Your task to perform on an android device: Do I have any events tomorrow? Image 0: 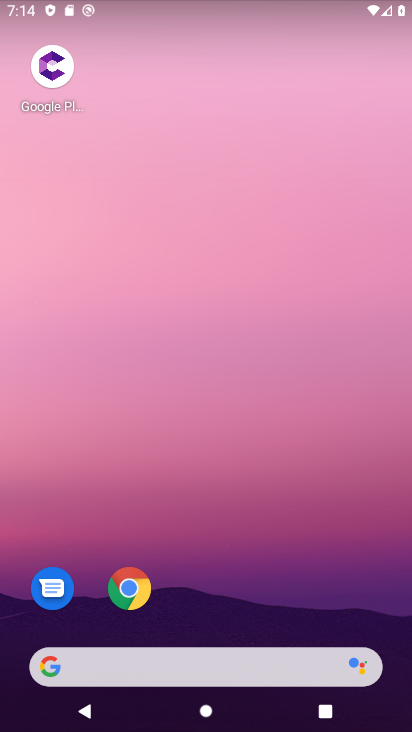
Step 0: drag from (241, 576) to (227, 82)
Your task to perform on an android device: Do I have any events tomorrow? Image 1: 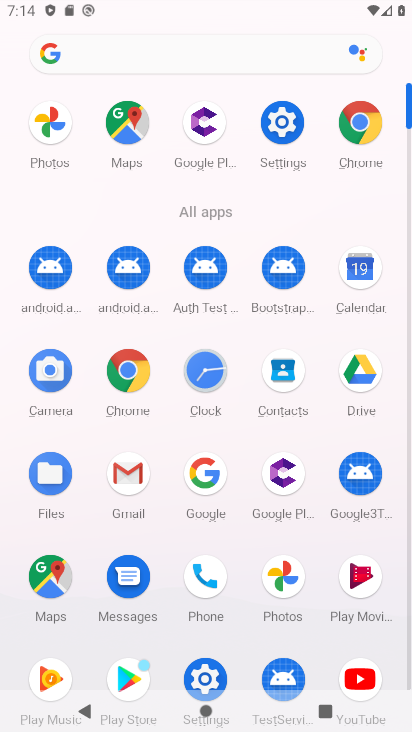
Step 1: click (357, 272)
Your task to perform on an android device: Do I have any events tomorrow? Image 2: 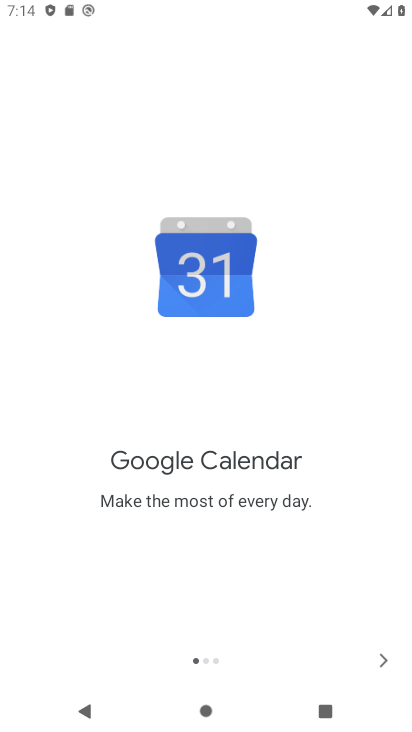
Step 2: click (385, 660)
Your task to perform on an android device: Do I have any events tomorrow? Image 3: 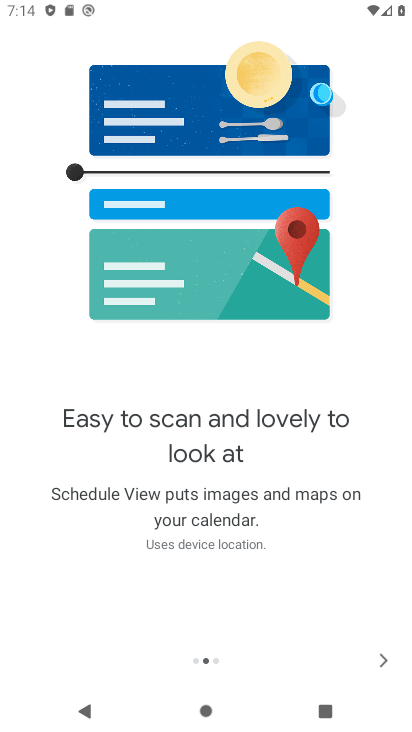
Step 3: click (385, 660)
Your task to perform on an android device: Do I have any events tomorrow? Image 4: 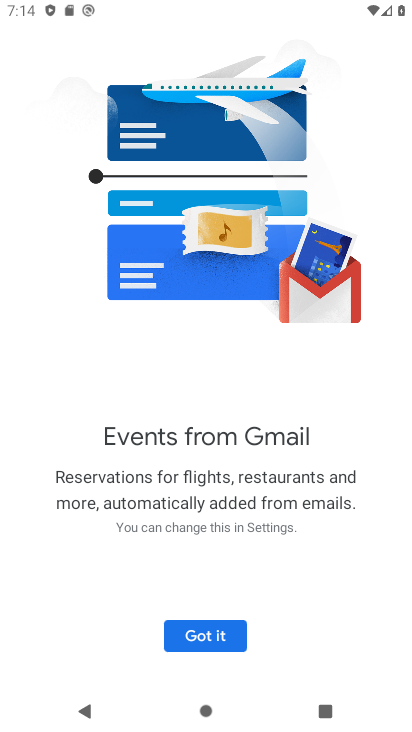
Step 4: click (385, 660)
Your task to perform on an android device: Do I have any events tomorrow? Image 5: 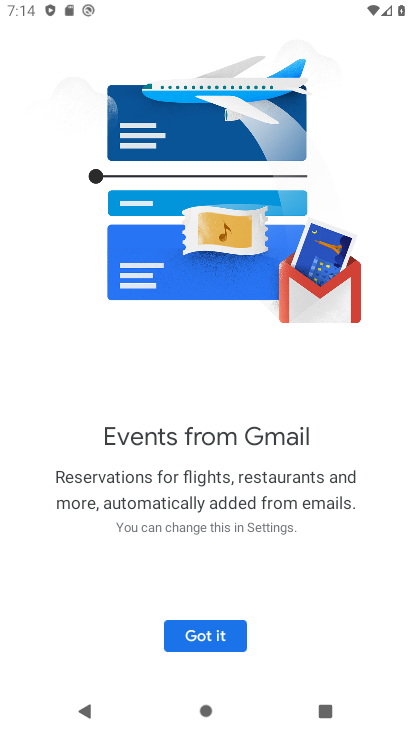
Step 5: click (195, 638)
Your task to perform on an android device: Do I have any events tomorrow? Image 6: 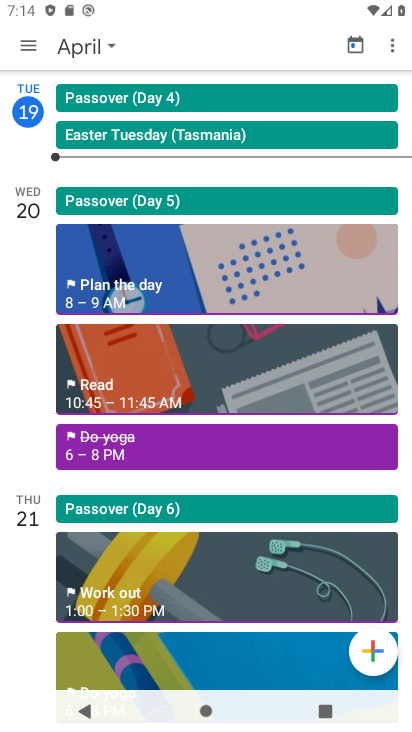
Step 6: click (21, 50)
Your task to perform on an android device: Do I have any events tomorrow? Image 7: 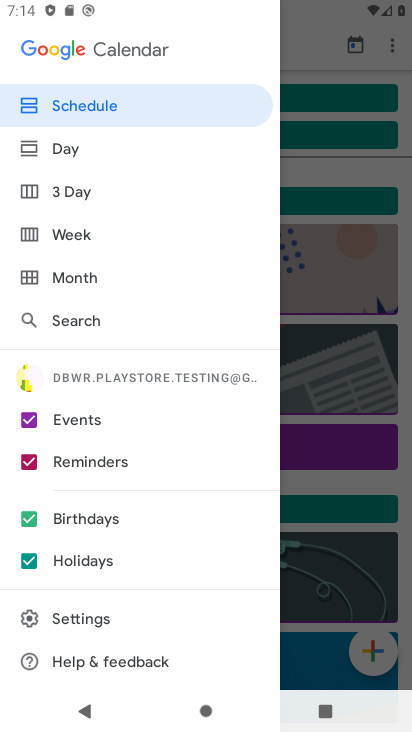
Step 7: click (63, 151)
Your task to perform on an android device: Do I have any events tomorrow? Image 8: 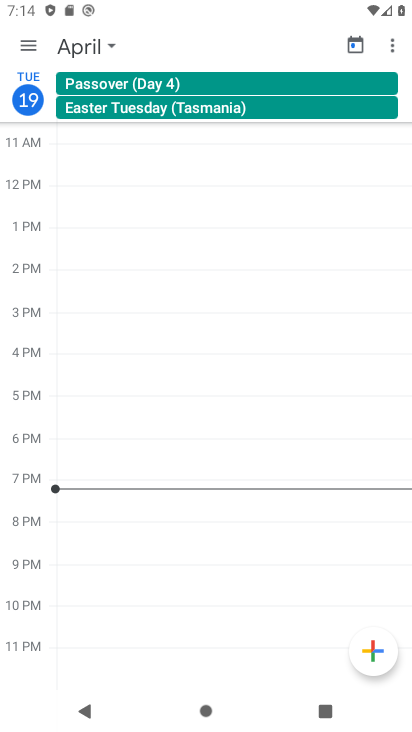
Step 8: click (114, 46)
Your task to perform on an android device: Do I have any events tomorrow? Image 9: 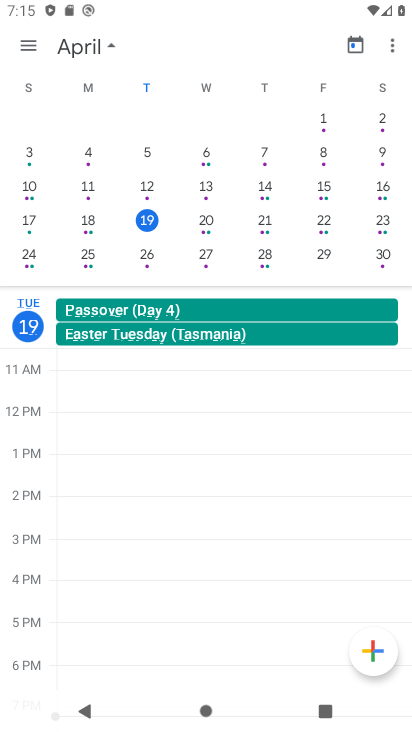
Step 9: click (212, 220)
Your task to perform on an android device: Do I have any events tomorrow? Image 10: 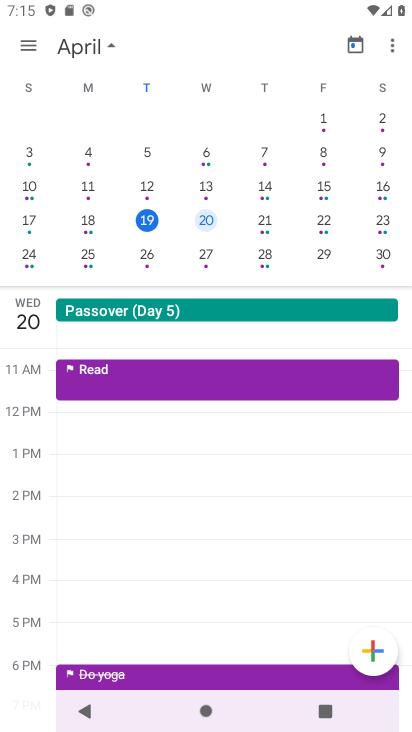
Step 10: task complete